Your task to perform on an android device: set the timer Image 0: 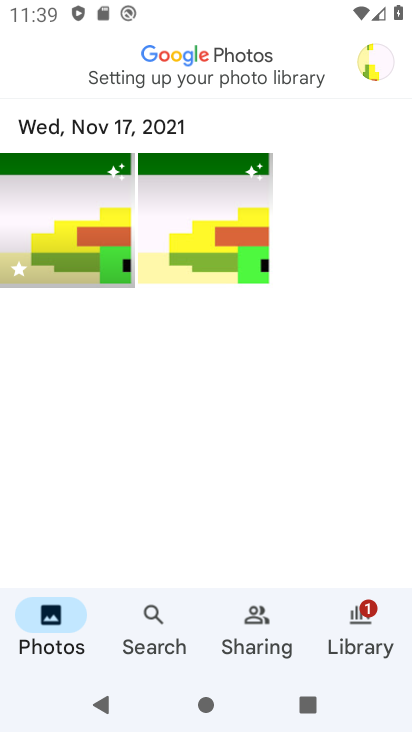
Step 0: press back button
Your task to perform on an android device: set the timer Image 1: 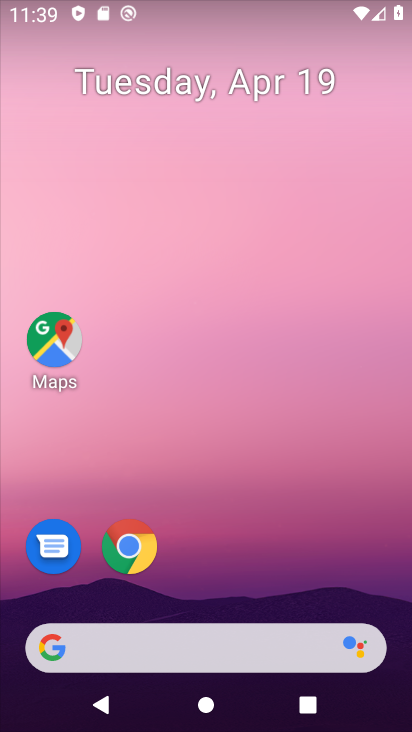
Step 1: drag from (389, 591) to (275, 11)
Your task to perform on an android device: set the timer Image 2: 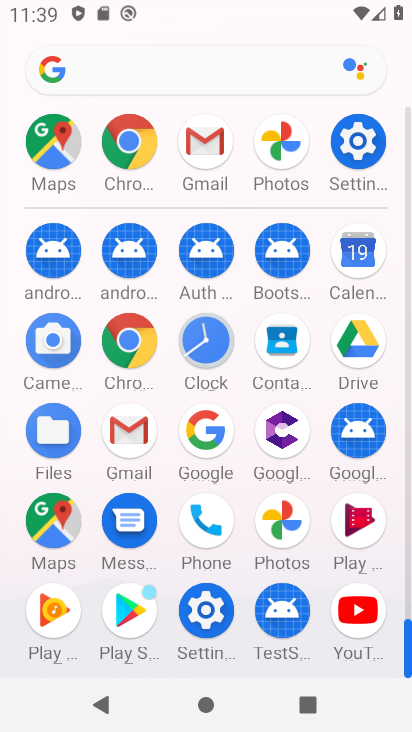
Step 2: click (209, 332)
Your task to perform on an android device: set the timer Image 3: 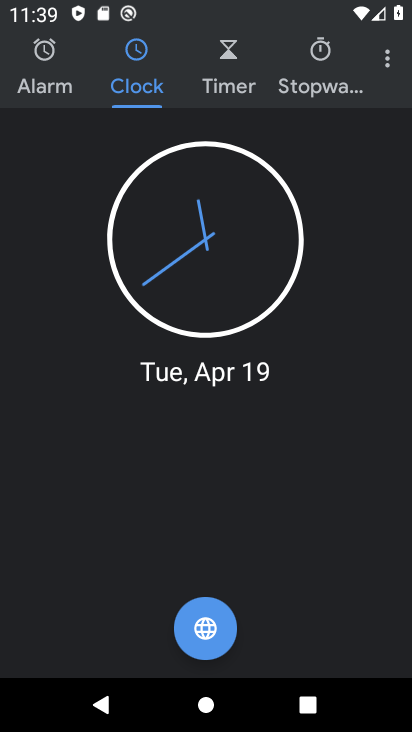
Step 3: click (39, 42)
Your task to perform on an android device: set the timer Image 4: 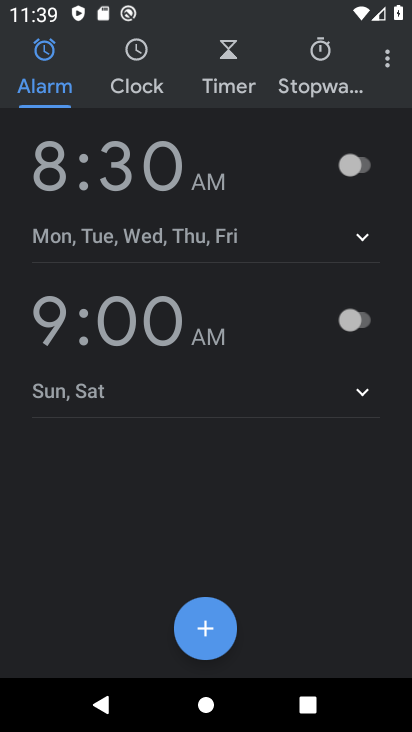
Step 4: click (226, 65)
Your task to perform on an android device: set the timer Image 5: 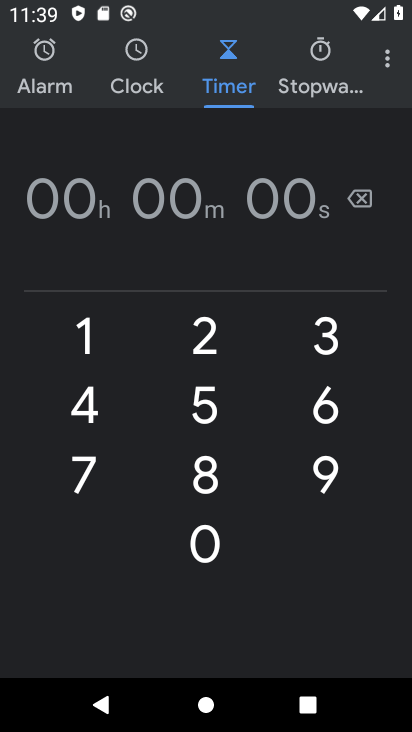
Step 5: click (202, 380)
Your task to perform on an android device: set the timer Image 6: 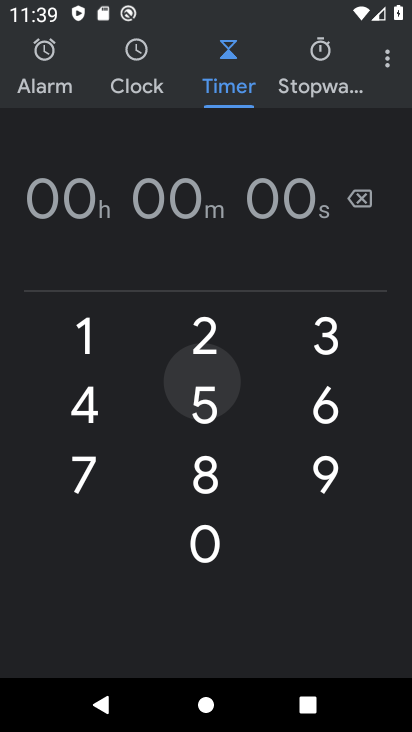
Step 6: click (209, 332)
Your task to perform on an android device: set the timer Image 7: 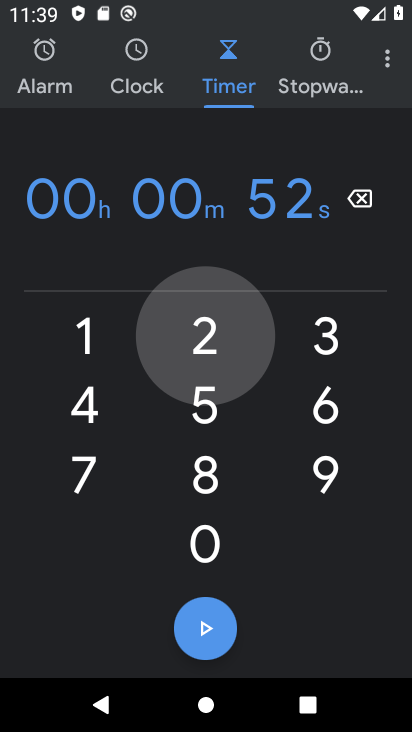
Step 7: click (107, 396)
Your task to perform on an android device: set the timer Image 8: 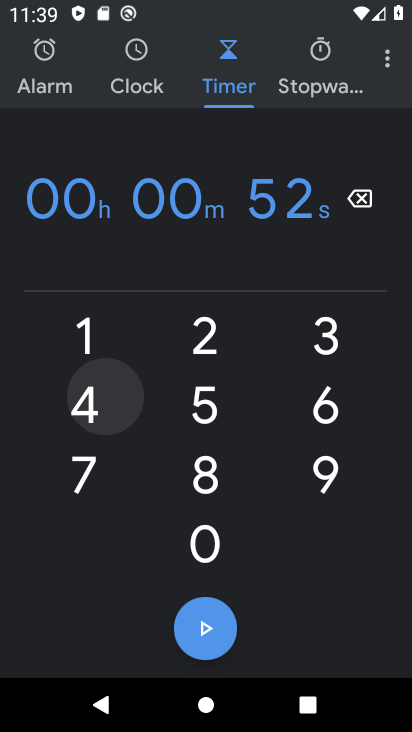
Step 8: click (77, 458)
Your task to perform on an android device: set the timer Image 9: 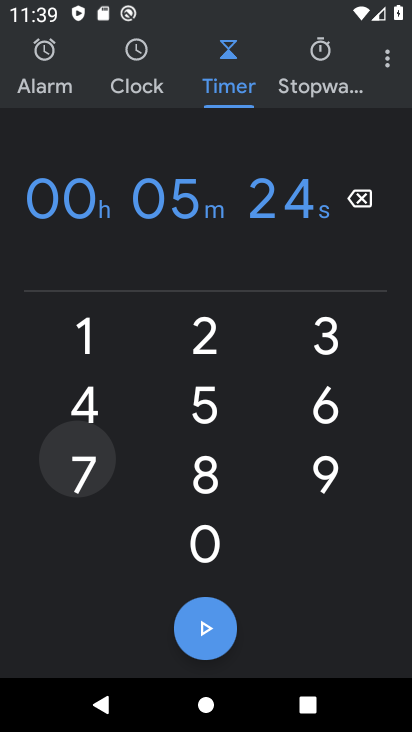
Step 9: click (178, 454)
Your task to perform on an android device: set the timer Image 10: 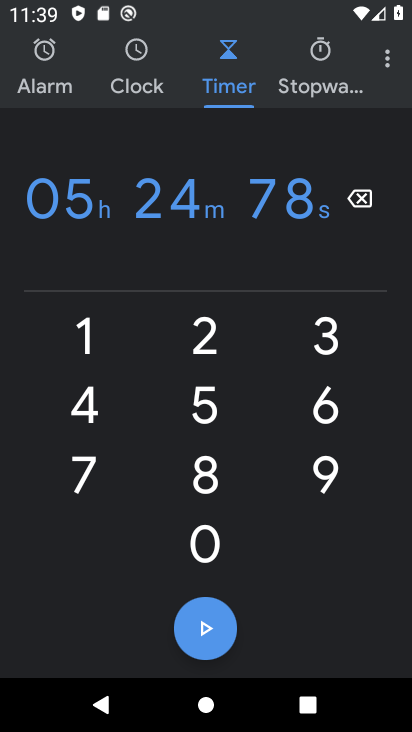
Step 10: click (212, 629)
Your task to perform on an android device: set the timer Image 11: 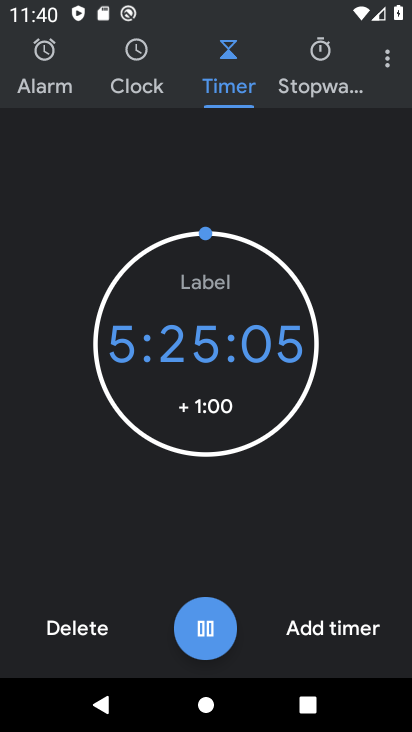
Step 11: task complete